Your task to perform on an android device: Open ESPN.com Image 0: 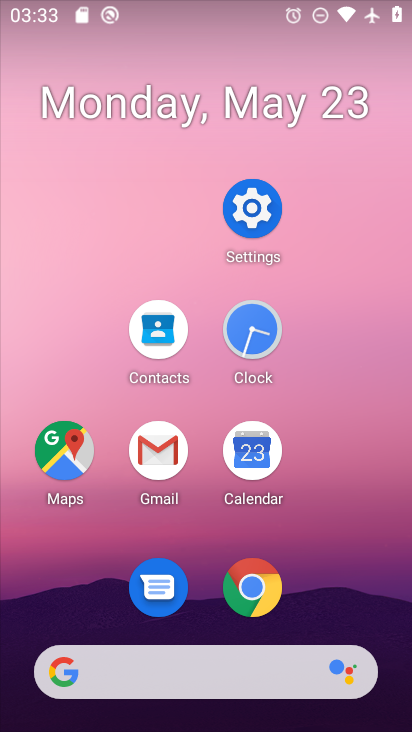
Step 0: click (248, 664)
Your task to perform on an android device: Open ESPN.com Image 1: 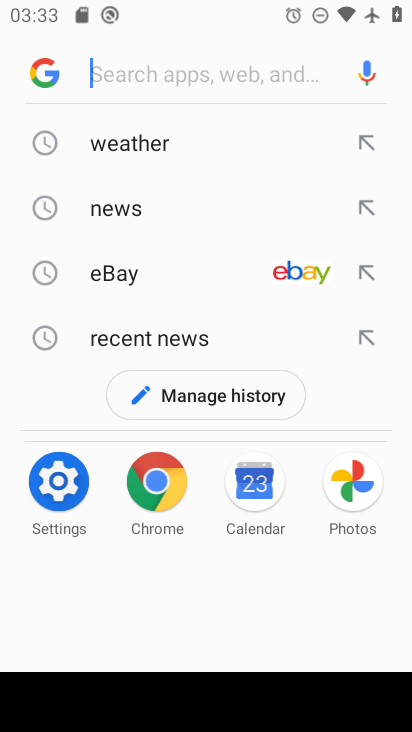
Step 1: type "espn"
Your task to perform on an android device: Open ESPN.com Image 2: 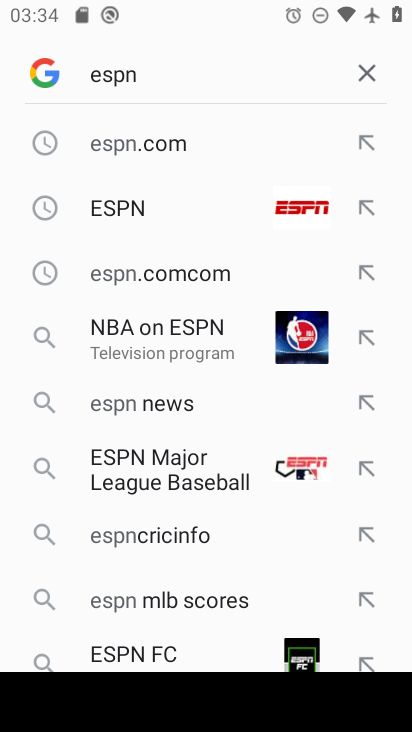
Step 2: click (145, 154)
Your task to perform on an android device: Open ESPN.com Image 3: 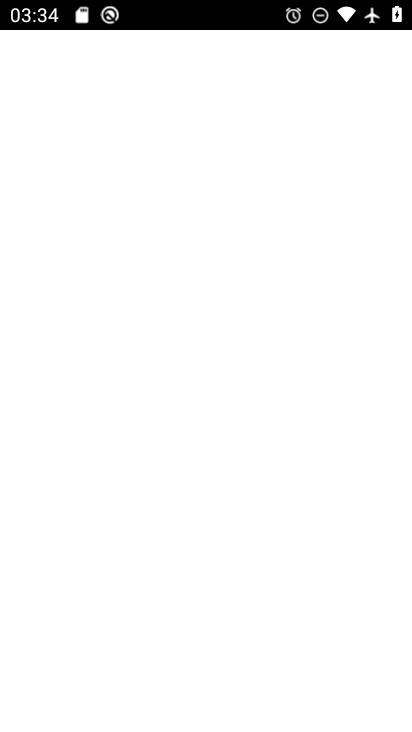
Step 3: task complete